Your task to perform on an android device: toggle data saver in the chrome app Image 0: 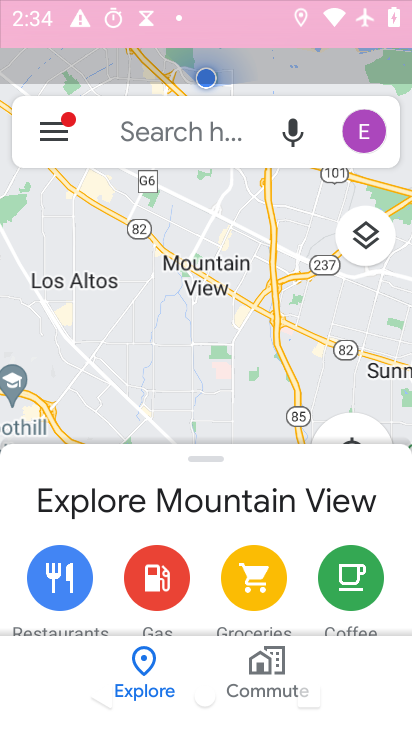
Step 0: press home button
Your task to perform on an android device: toggle data saver in the chrome app Image 1: 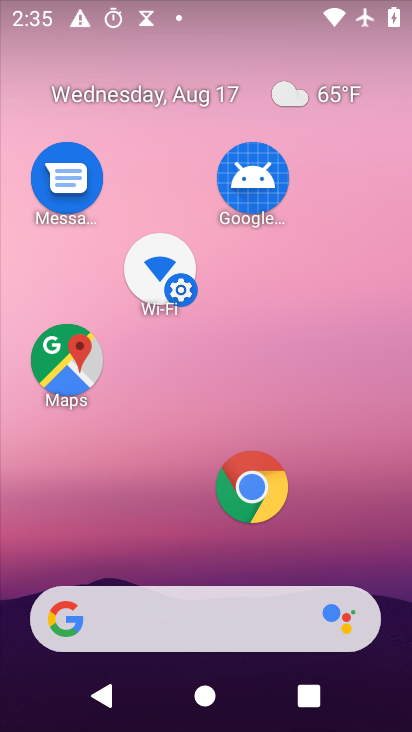
Step 1: click (253, 475)
Your task to perform on an android device: toggle data saver in the chrome app Image 2: 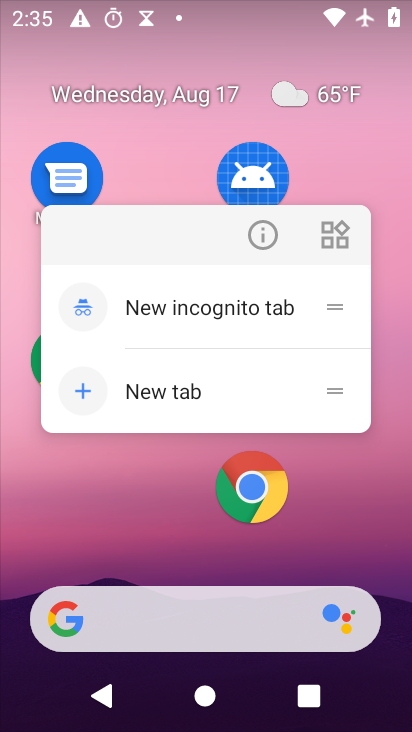
Step 2: click (248, 497)
Your task to perform on an android device: toggle data saver in the chrome app Image 3: 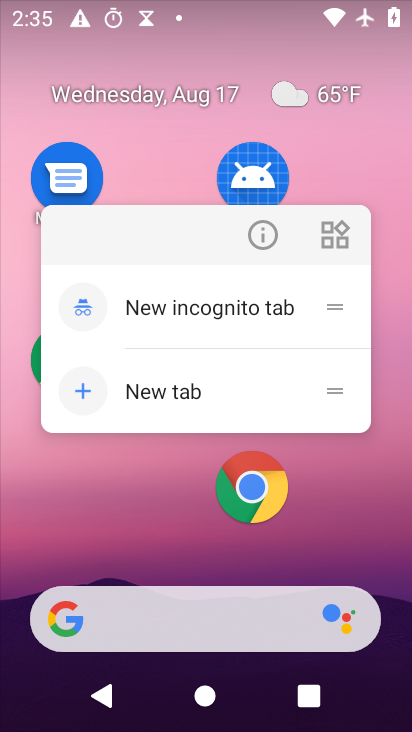
Step 3: click (249, 496)
Your task to perform on an android device: toggle data saver in the chrome app Image 4: 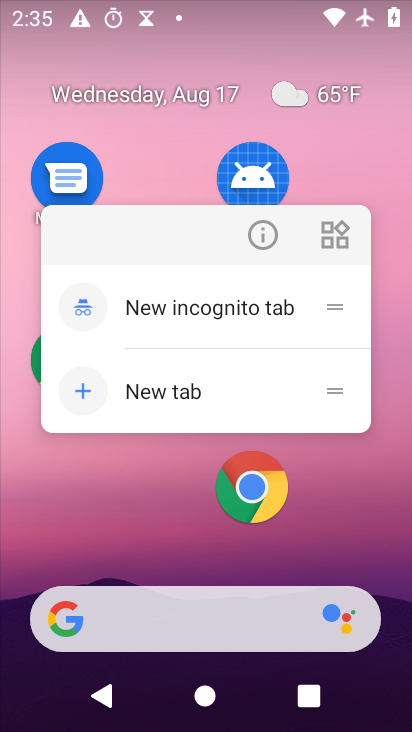
Step 4: click (245, 493)
Your task to perform on an android device: toggle data saver in the chrome app Image 5: 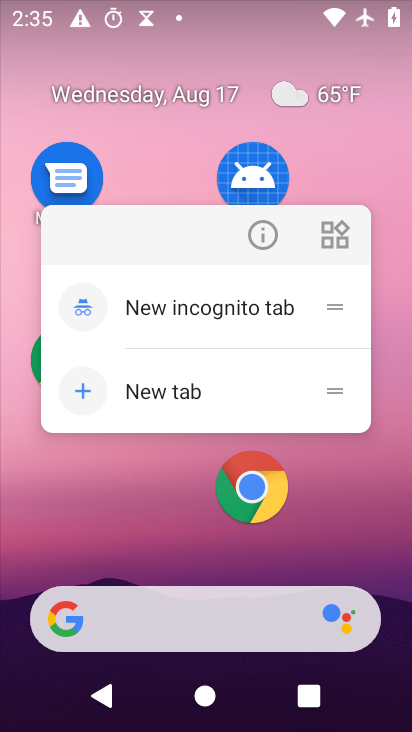
Step 5: click (237, 488)
Your task to perform on an android device: toggle data saver in the chrome app Image 6: 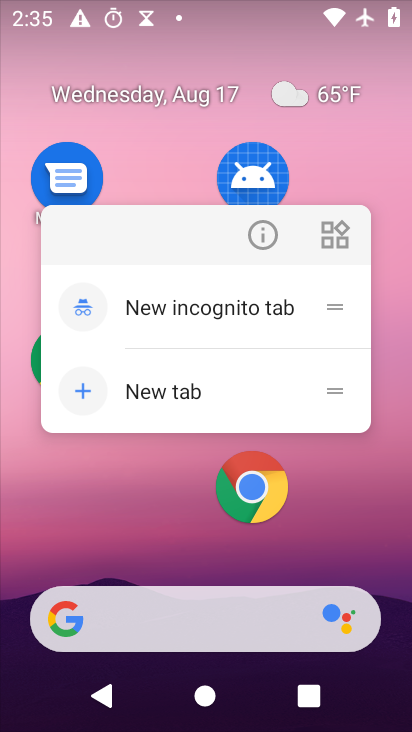
Step 6: click (258, 483)
Your task to perform on an android device: toggle data saver in the chrome app Image 7: 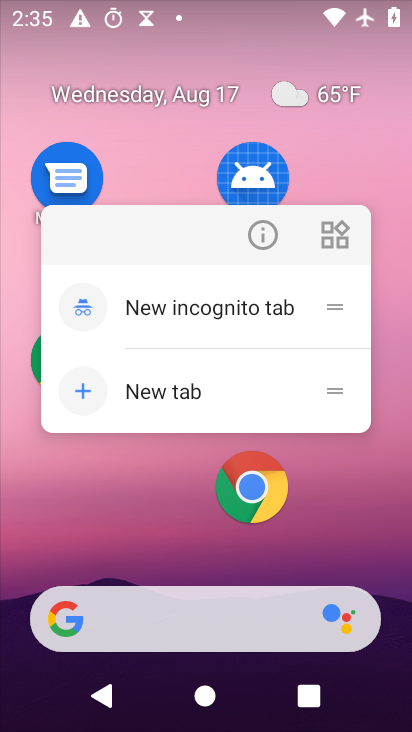
Step 7: click (251, 488)
Your task to perform on an android device: toggle data saver in the chrome app Image 8: 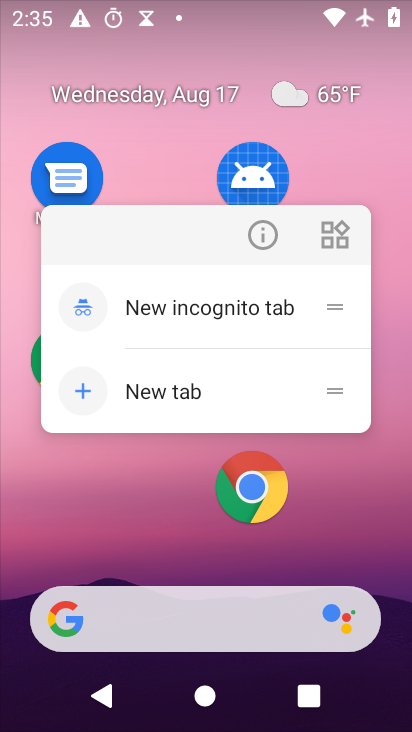
Step 8: click (251, 488)
Your task to perform on an android device: toggle data saver in the chrome app Image 9: 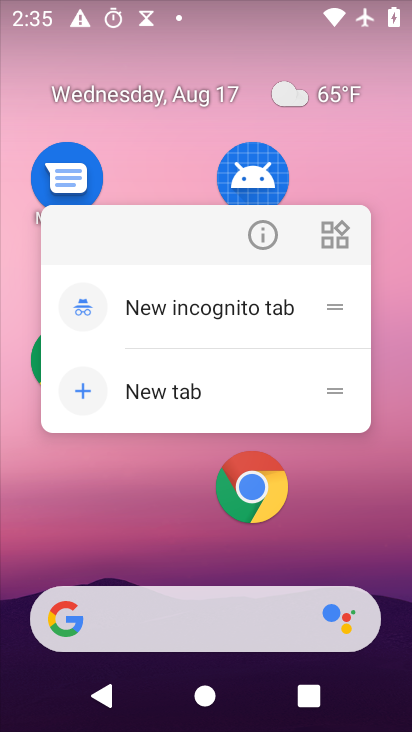
Step 9: click (251, 488)
Your task to perform on an android device: toggle data saver in the chrome app Image 10: 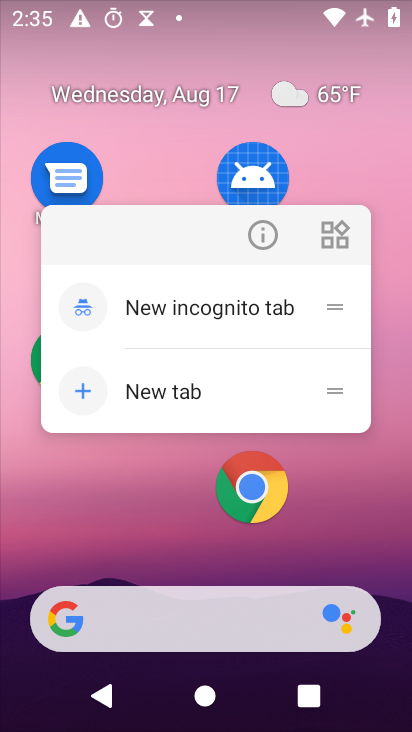
Step 10: click (250, 489)
Your task to perform on an android device: toggle data saver in the chrome app Image 11: 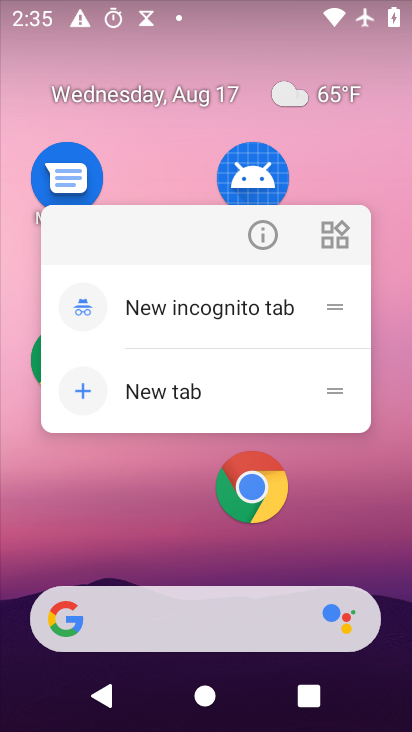
Step 11: click (264, 499)
Your task to perform on an android device: toggle data saver in the chrome app Image 12: 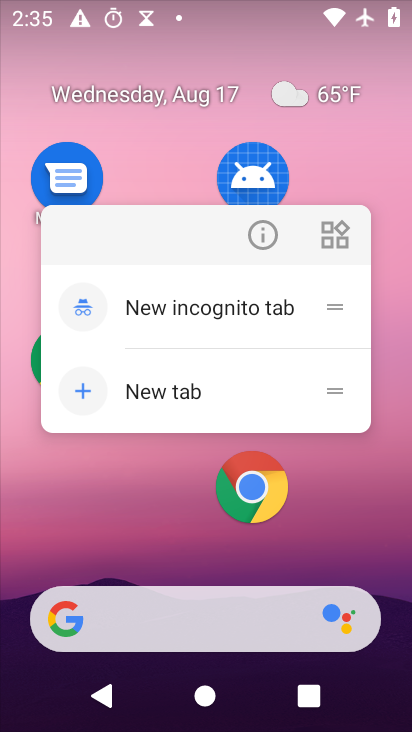
Step 12: click (268, 503)
Your task to perform on an android device: toggle data saver in the chrome app Image 13: 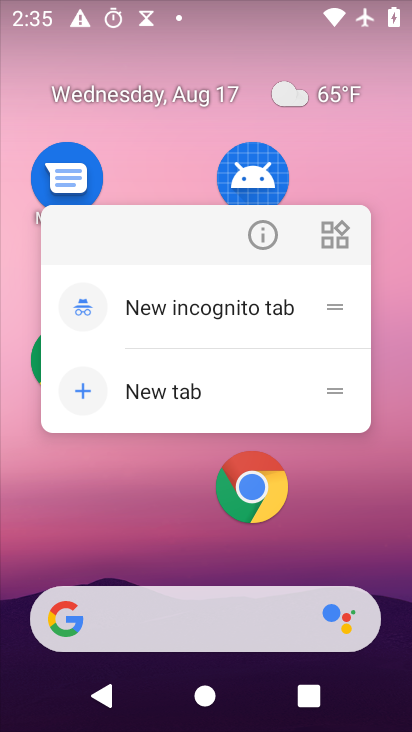
Step 13: click (269, 504)
Your task to perform on an android device: toggle data saver in the chrome app Image 14: 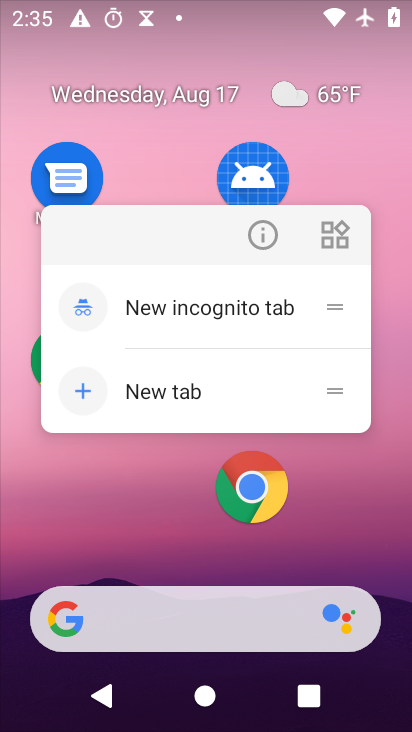
Step 14: click (236, 504)
Your task to perform on an android device: toggle data saver in the chrome app Image 15: 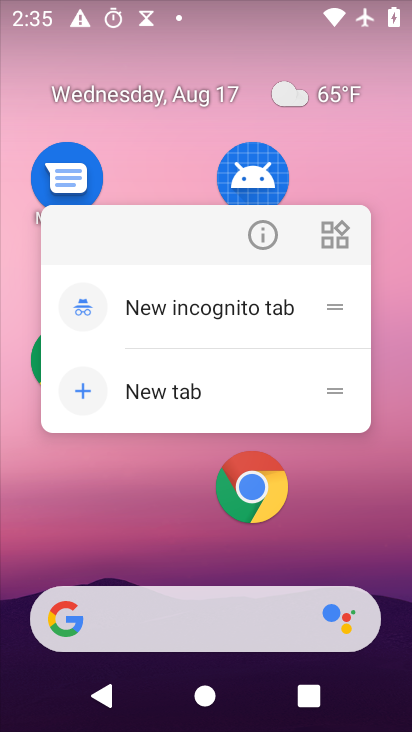
Step 15: click (235, 504)
Your task to perform on an android device: toggle data saver in the chrome app Image 16: 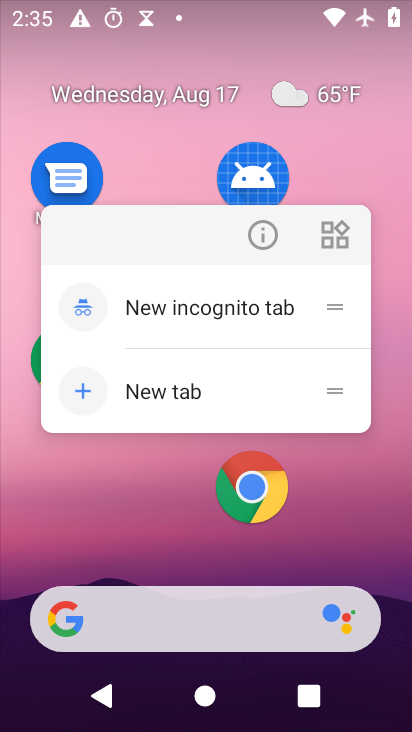
Step 16: click (234, 504)
Your task to perform on an android device: toggle data saver in the chrome app Image 17: 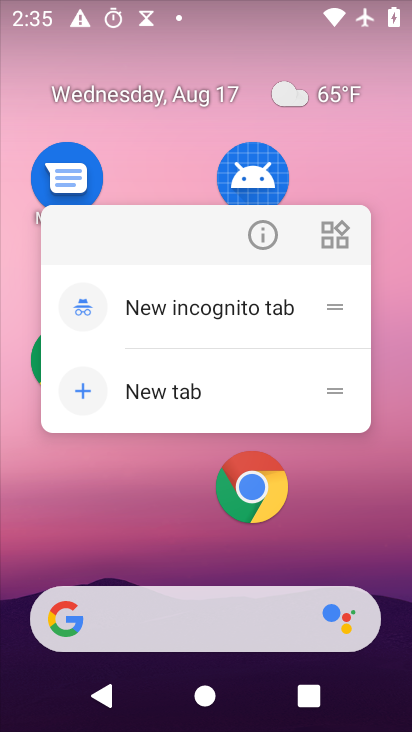
Step 17: click (232, 504)
Your task to perform on an android device: toggle data saver in the chrome app Image 18: 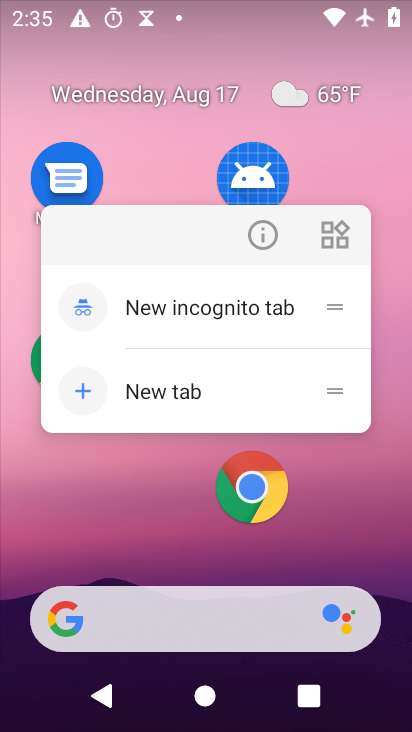
Step 18: click (231, 488)
Your task to perform on an android device: toggle data saver in the chrome app Image 19: 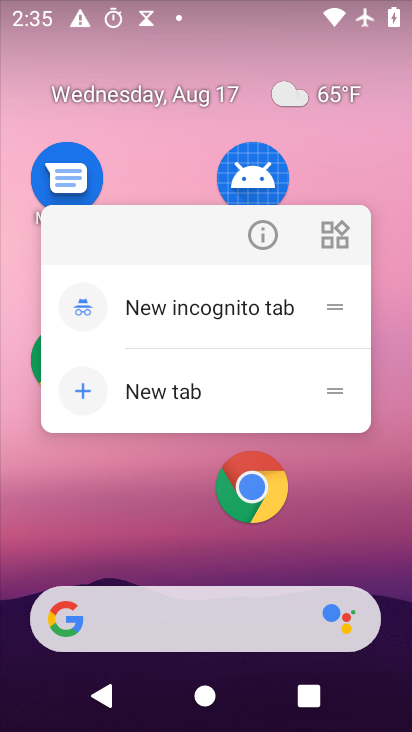
Step 19: click (208, 469)
Your task to perform on an android device: toggle data saver in the chrome app Image 20: 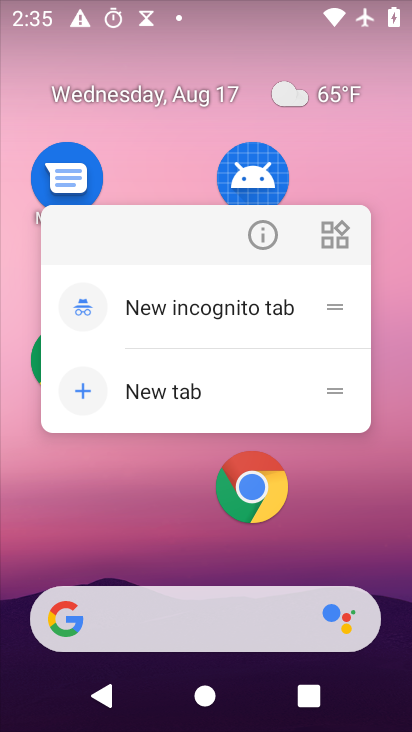
Step 20: click (255, 500)
Your task to perform on an android device: toggle data saver in the chrome app Image 21: 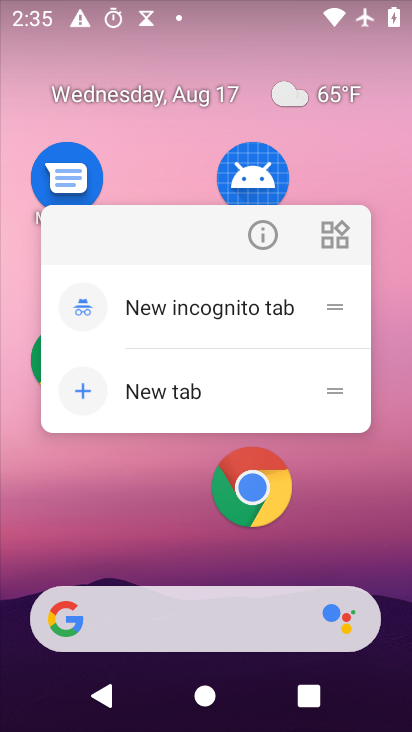
Step 21: click (255, 500)
Your task to perform on an android device: toggle data saver in the chrome app Image 22: 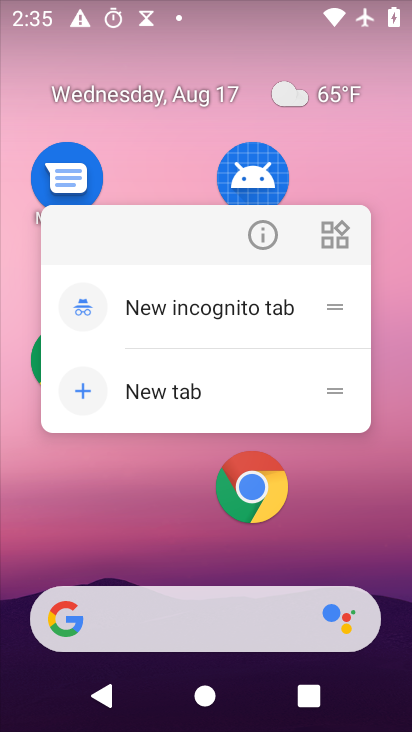
Step 22: click (255, 500)
Your task to perform on an android device: toggle data saver in the chrome app Image 23: 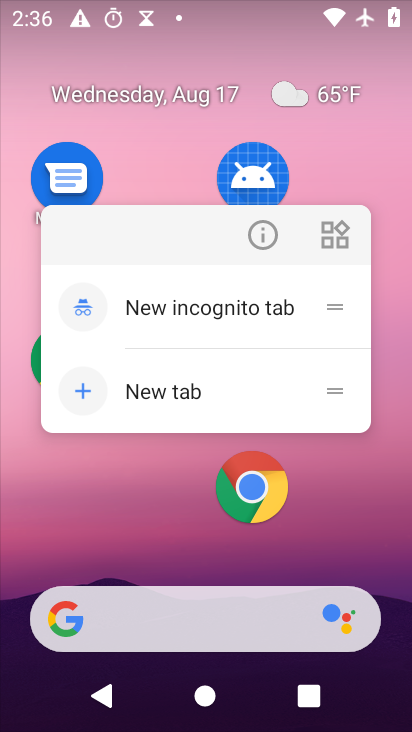
Step 23: click (233, 491)
Your task to perform on an android device: toggle data saver in the chrome app Image 24: 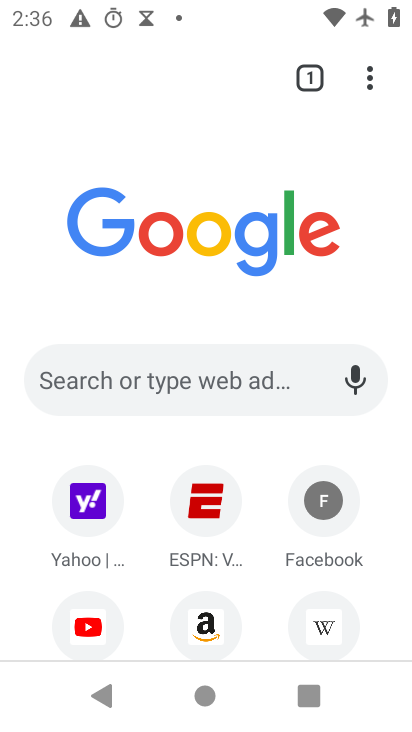
Step 24: drag from (368, 79) to (71, 547)
Your task to perform on an android device: toggle data saver in the chrome app Image 25: 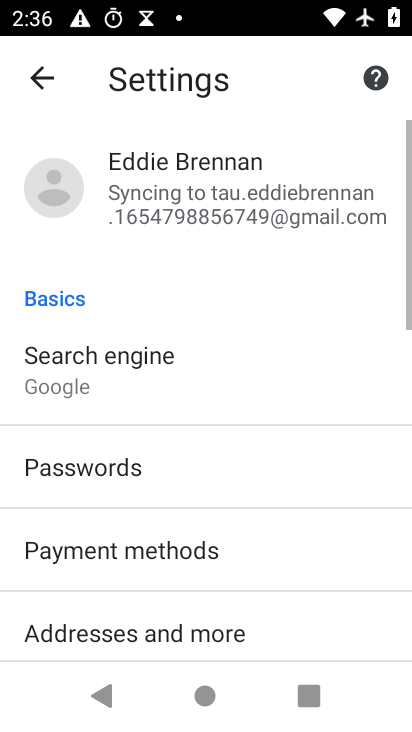
Step 25: drag from (321, 609) to (326, 40)
Your task to perform on an android device: toggle data saver in the chrome app Image 26: 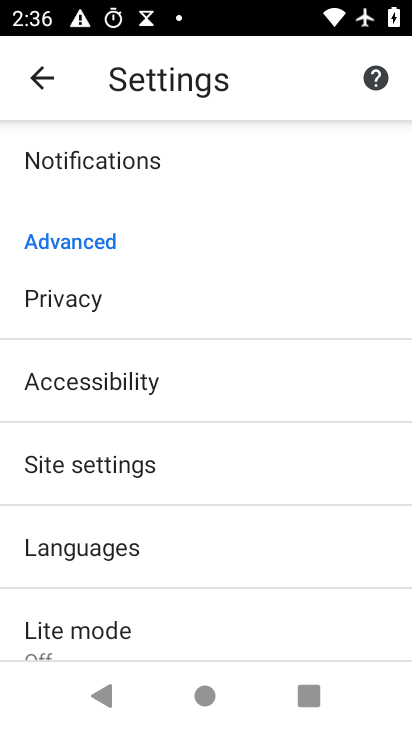
Step 26: click (102, 632)
Your task to perform on an android device: toggle data saver in the chrome app Image 27: 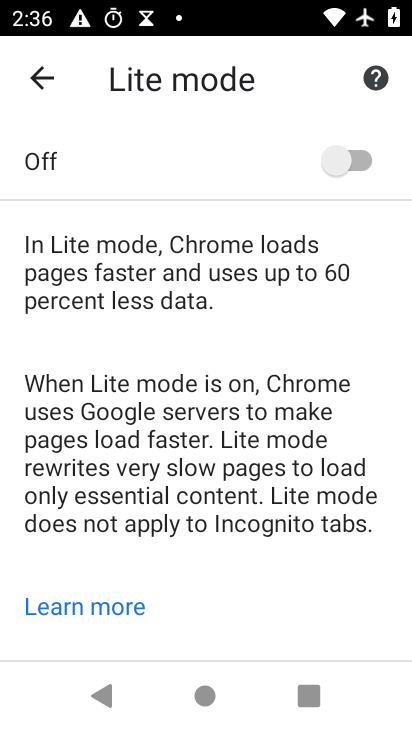
Step 27: click (337, 152)
Your task to perform on an android device: toggle data saver in the chrome app Image 28: 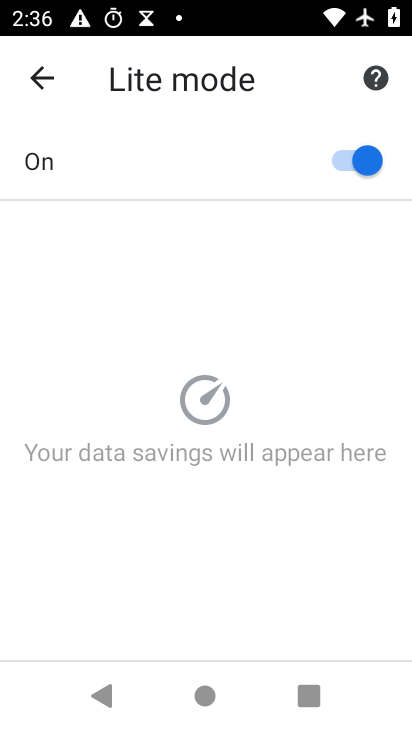
Step 28: task complete